Your task to perform on an android device: Show me the alarms in the clock app Image 0: 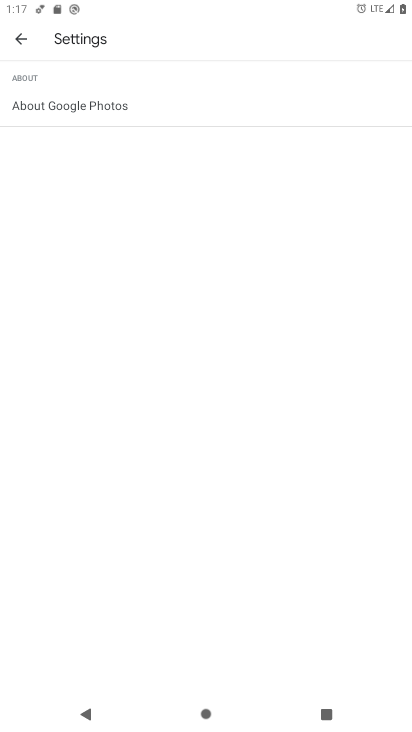
Step 0: press home button
Your task to perform on an android device: Show me the alarms in the clock app Image 1: 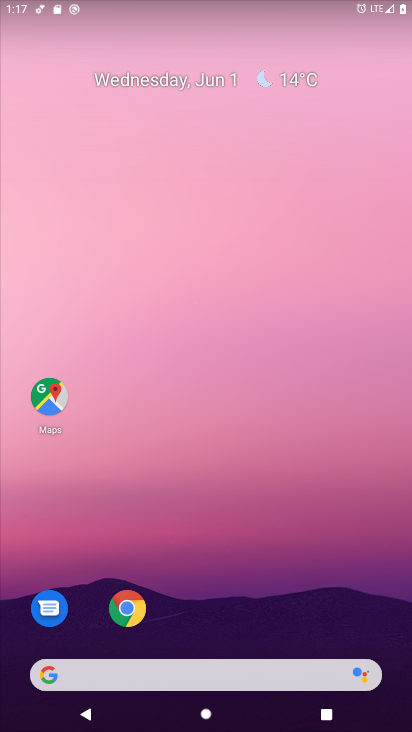
Step 1: drag from (192, 636) to (247, 96)
Your task to perform on an android device: Show me the alarms in the clock app Image 2: 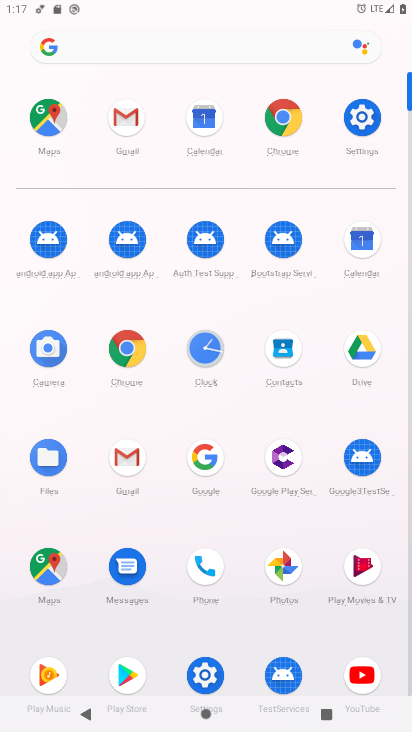
Step 2: click (203, 382)
Your task to perform on an android device: Show me the alarms in the clock app Image 3: 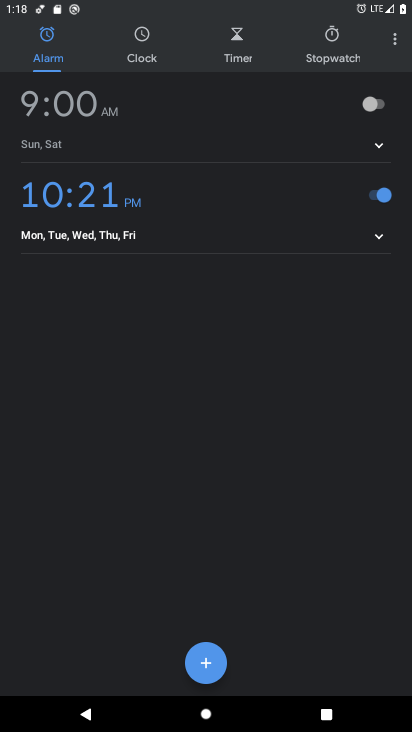
Step 3: task complete